Your task to perform on an android device: see creations saved in the google photos Image 0: 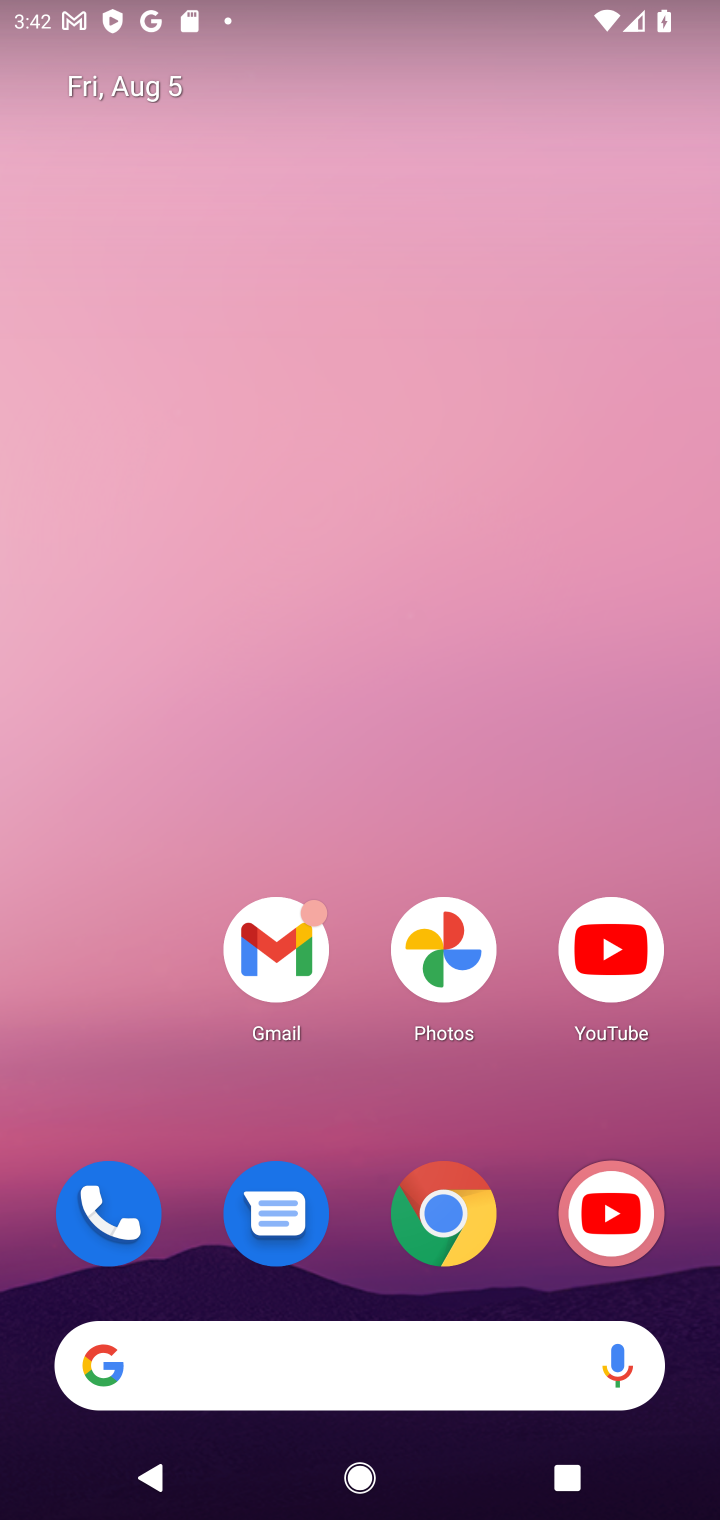
Step 0: click (442, 933)
Your task to perform on an android device: see creations saved in the google photos Image 1: 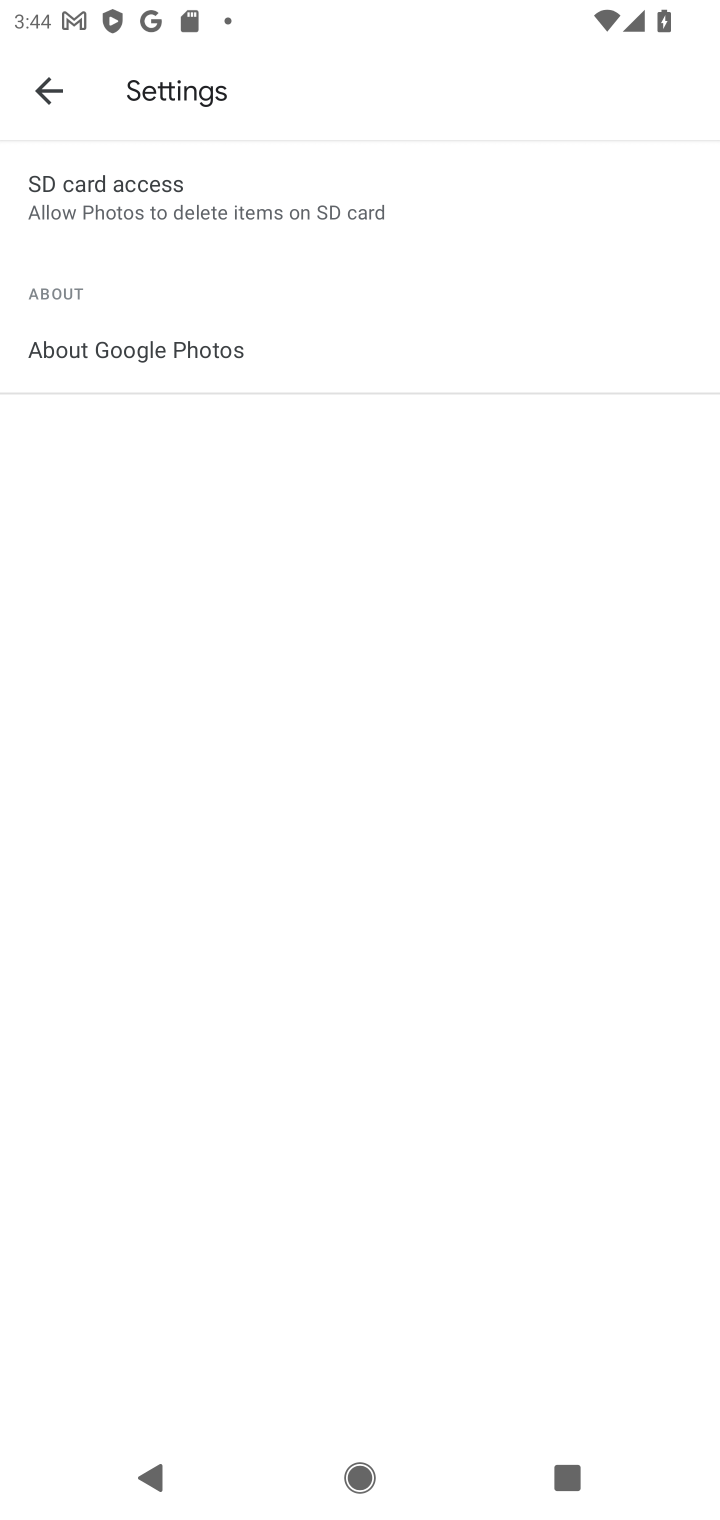
Step 1: press home button
Your task to perform on an android device: see creations saved in the google photos Image 2: 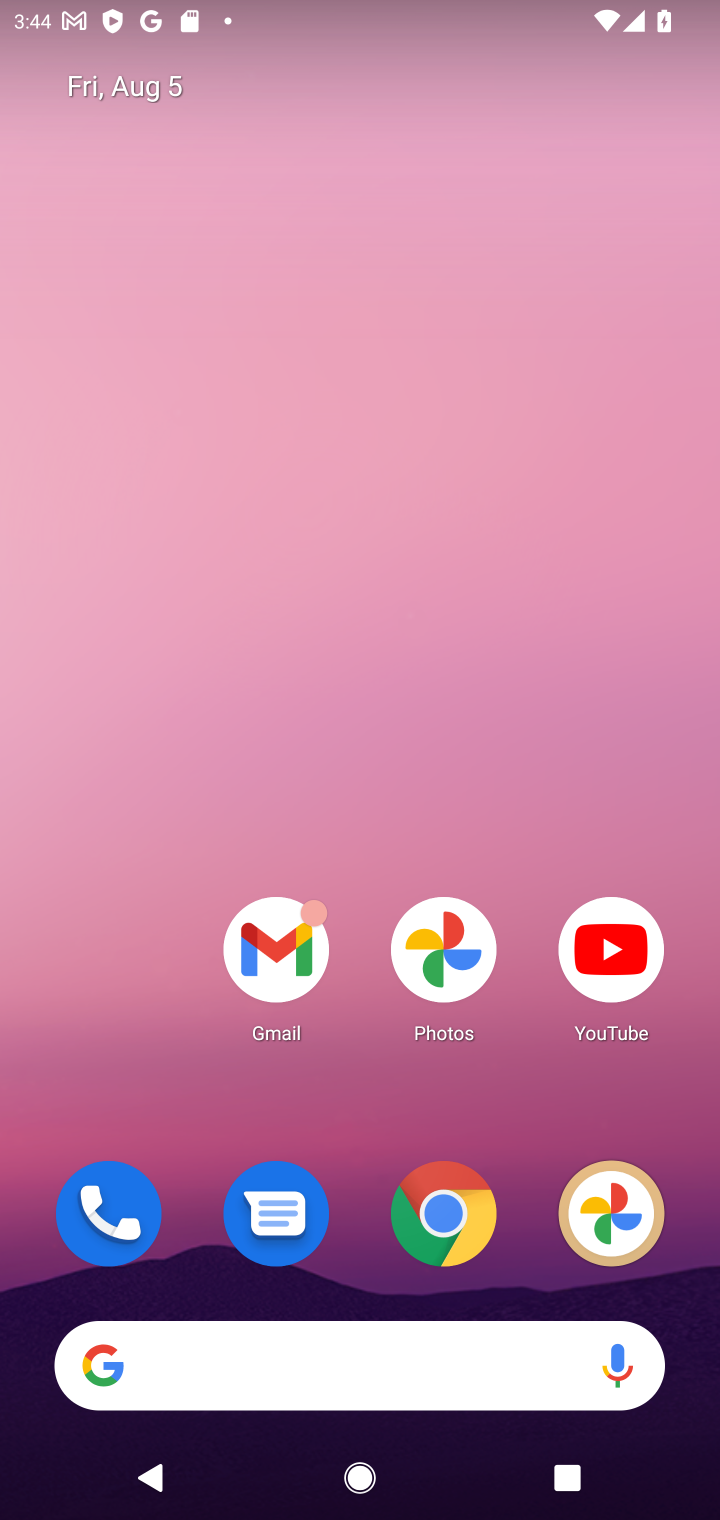
Step 2: click (372, 352)
Your task to perform on an android device: see creations saved in the google photos Image 3: 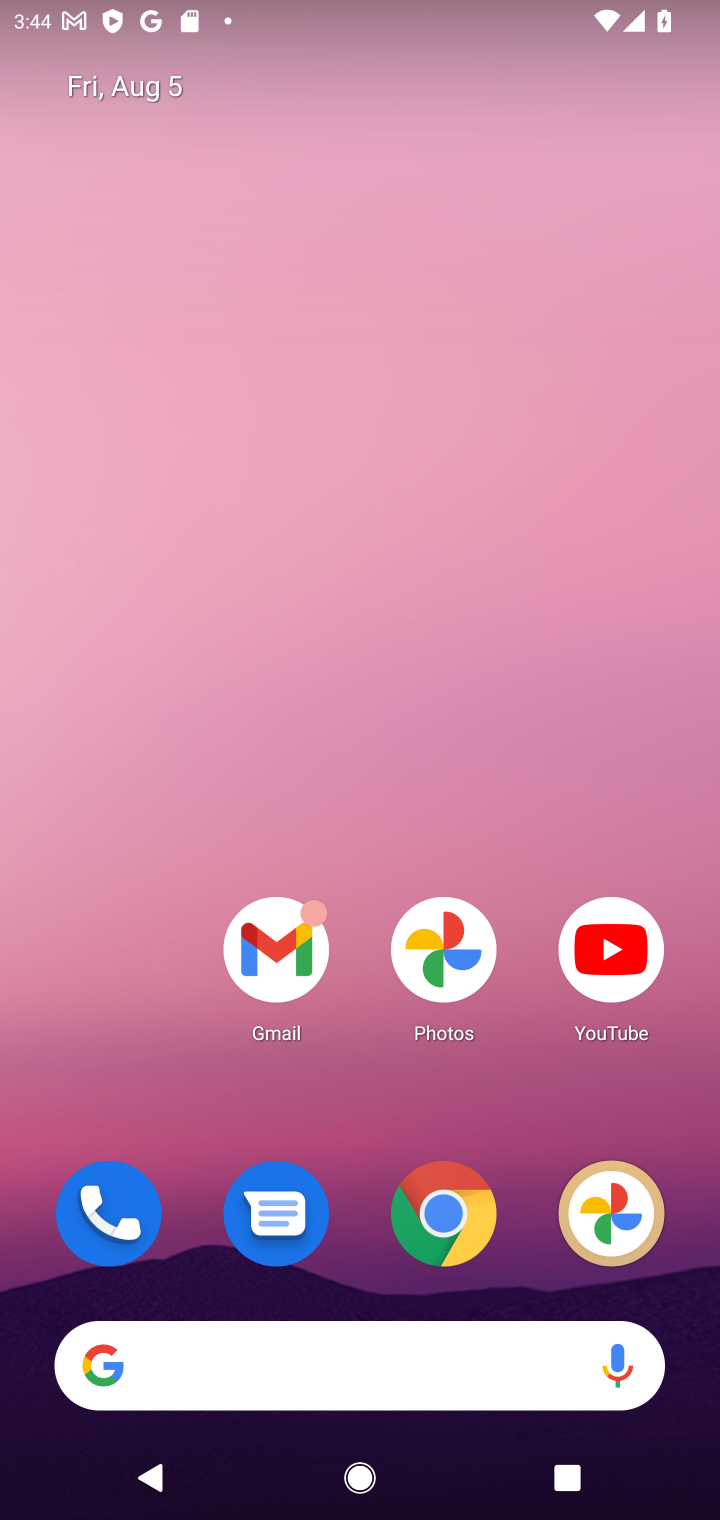
Step 3: click (454, 955)
Your task to perform on an android device: see creations saved in the google photos Image 4: 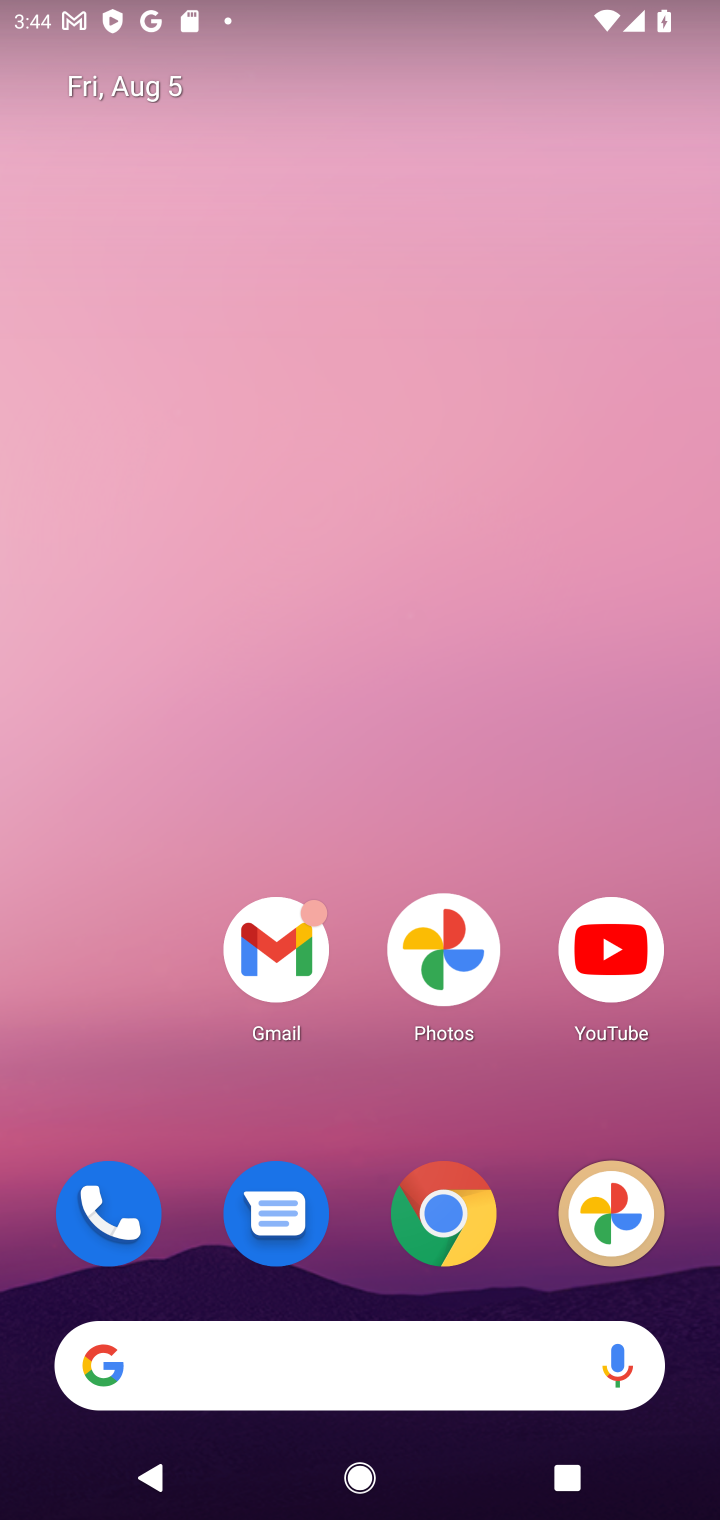
Step 4: click (454, 955)
Your task to perform on an android device: see creations saved in the google photos Image 5: 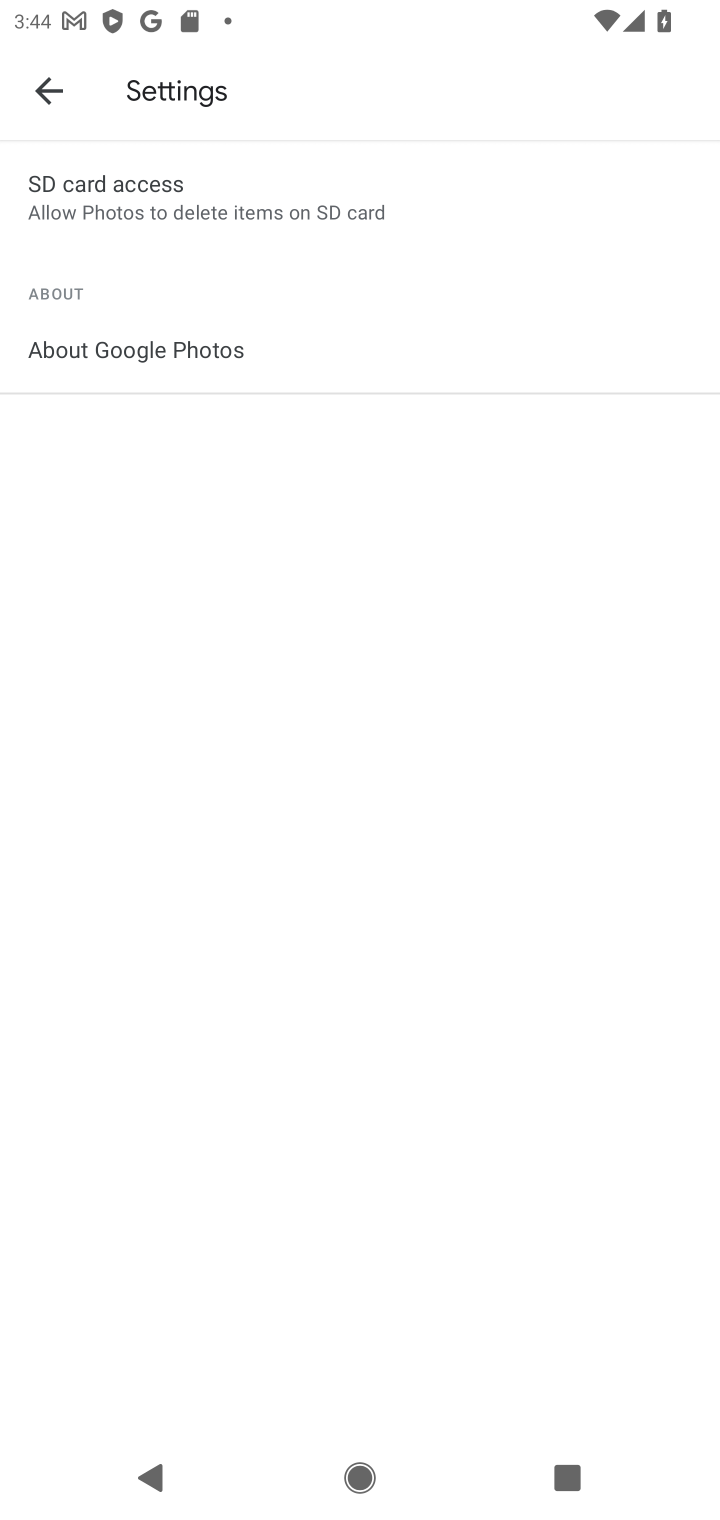
Step 5: click (452, 947)
Your task to perform on an android device: see creations saved in the google photos Image 6: 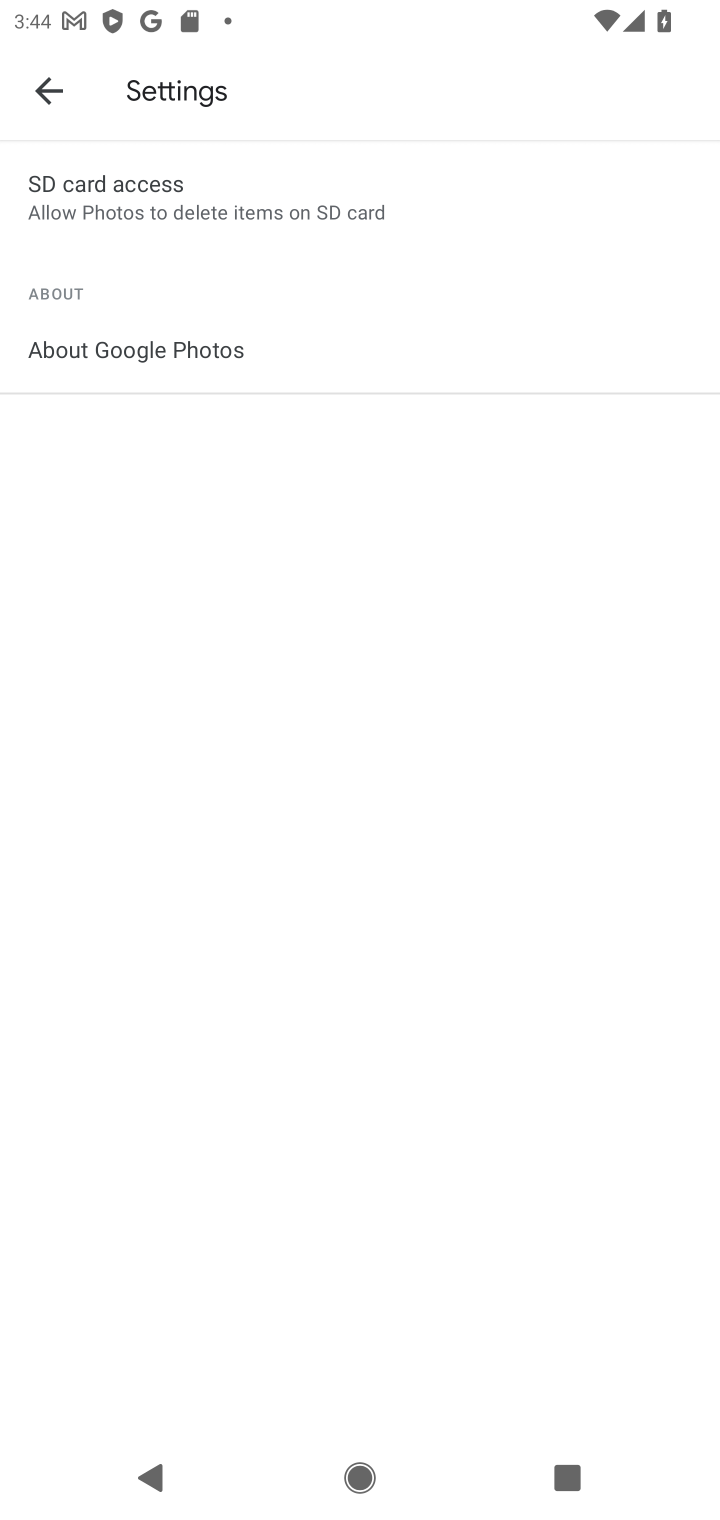
Step 6: task complete